Your task to perform on an android device: Open Reddit.com Image 0: 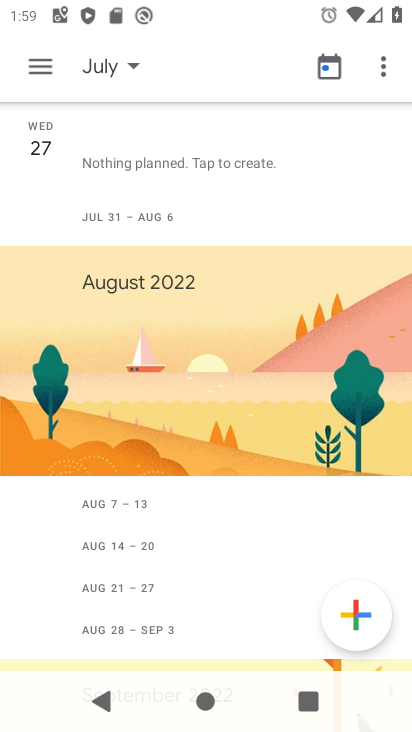
Step 0: press home button
Your task to perform on an android device: Open Reddit.com Image 1: 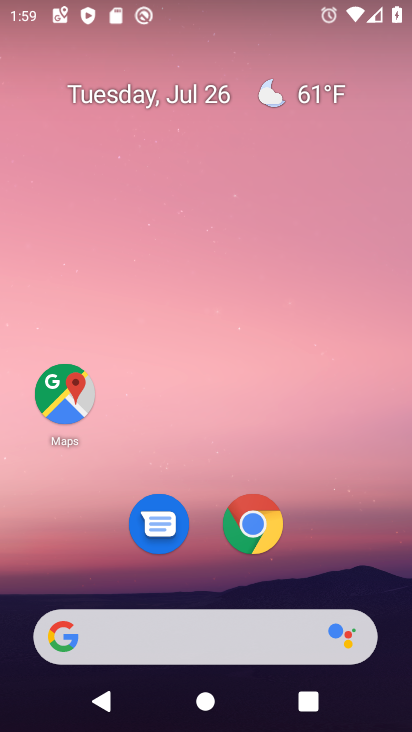
Step 1: click (249, 518)
Your task to perform on an android device: Open Reddit.com Image 2: 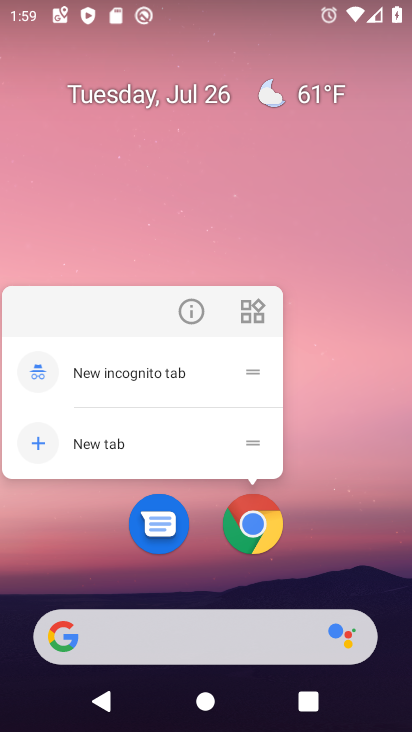
Step 2: click (249, 519)
Your task to perform on an android device: Open Reddit.com Image 3: 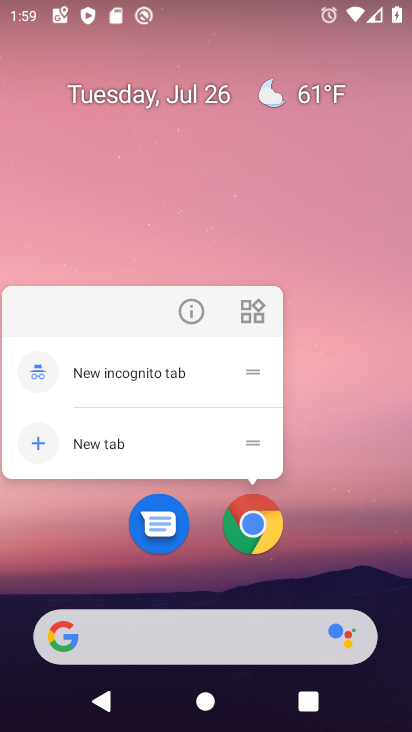
Step 3: click (249, 519)
Your task to perform on an android device: Open Reddit.com Image 4: 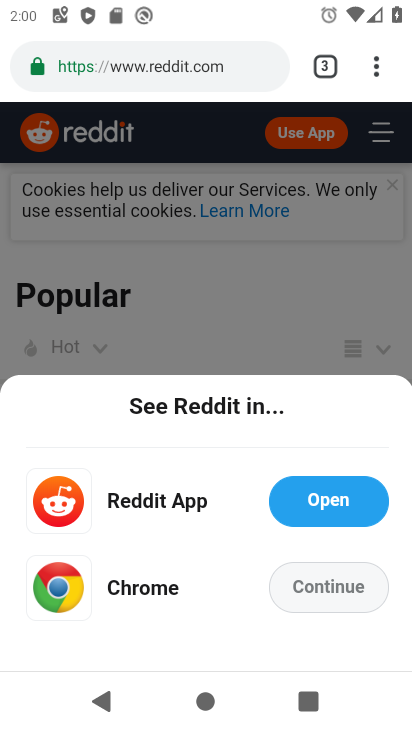
Step 4: task complete